Your task to perform on an android device: turn off airplane mode Image 0: 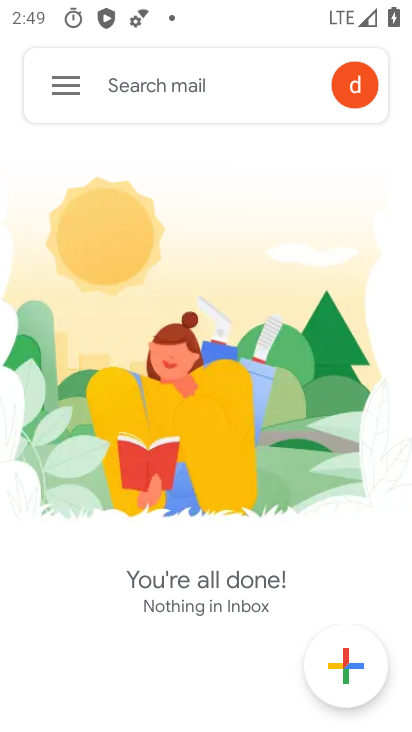
Step 0: press home button
Your task to perform on an android device: turn off airplane mode Image 1: 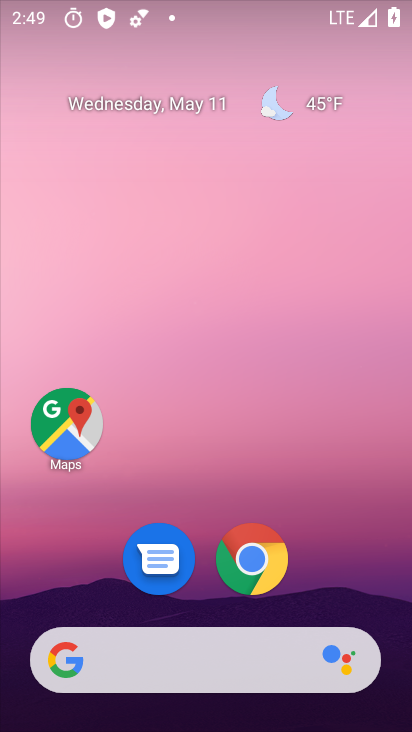
Step 1: drag from (249, 431) to (196, 75)
Your task to perform on an android device: turn off airplane mode Image 2: 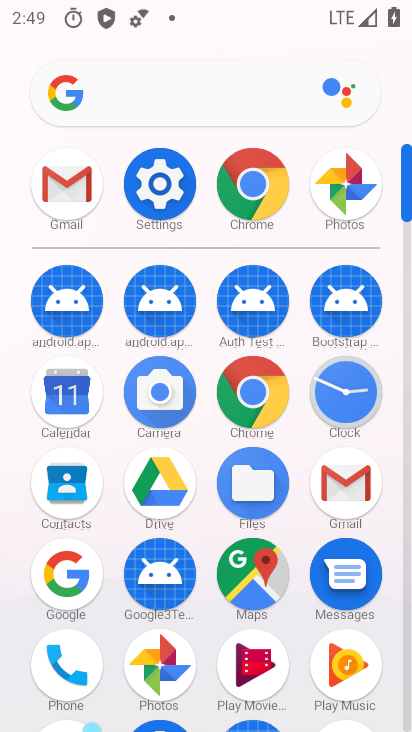
Step 2: click (144, 195)
Your task to perform on an android device: turn off airplane mode Image 3: 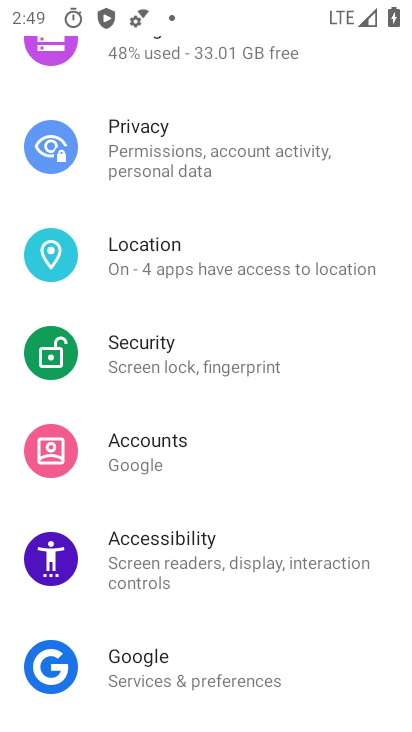
Step 3: drag from (247, 191) to (236, 664)
Your task to perform on an android device: turn off airplane mode Image 4: 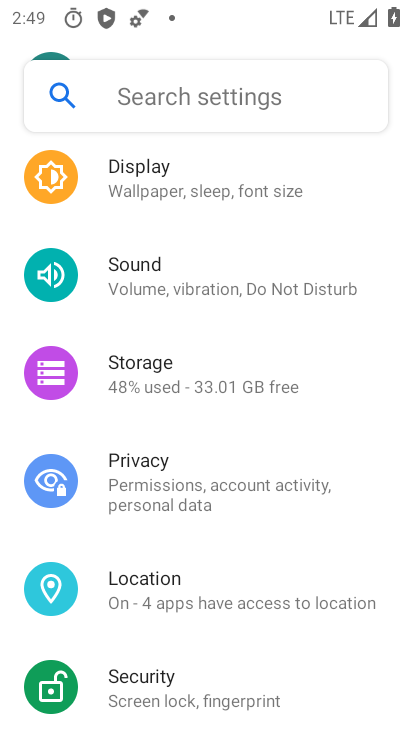
Step 4: drag from (230, 260) to (204, 687)
Your task to perform on an android device: turn off airplane mode Image 5: 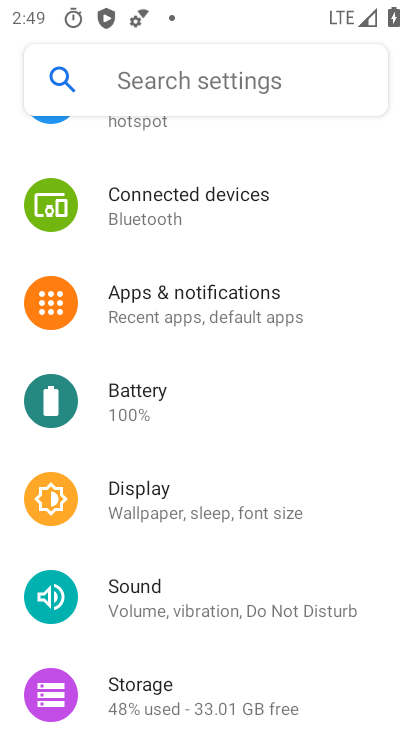
Step 5: drag from (225, 296) to (176, 635)
Your task to perform on an android device: turn off airplane mode Image 6: 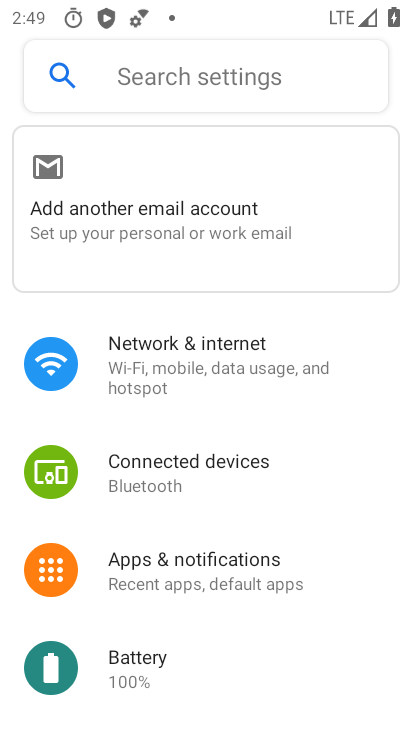
Step 6: click (187, 369)
Your task to perform on an android device: turn off airplane mode Image 7: 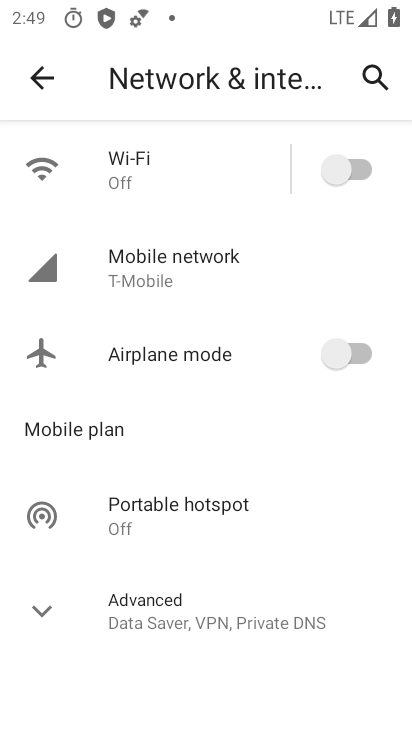
Step 7: task complete